Your task to perform on an android device: Go to Maps Image 0: 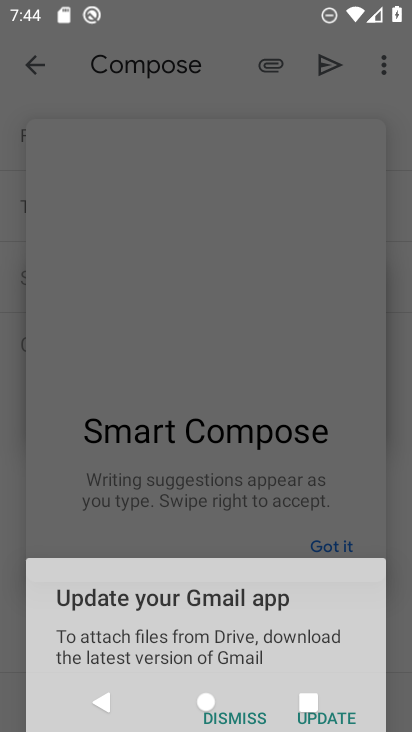
Step 0: press home button
Your task to perform on an android device: Go to Maps Image 1: 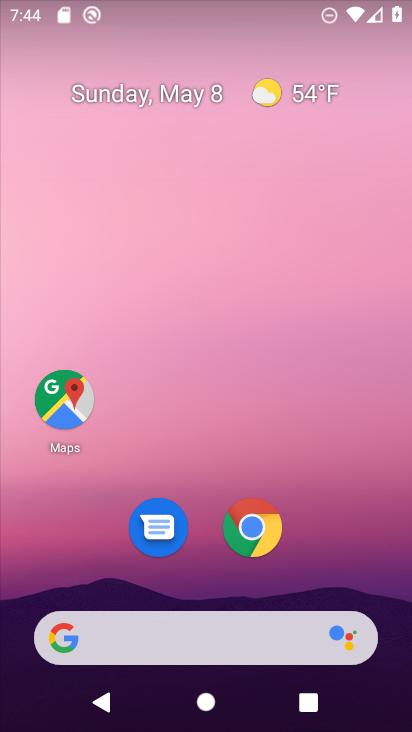
Step 1: click (69, 392)
Your task to perform on an android device: Go to Maps Image 2: 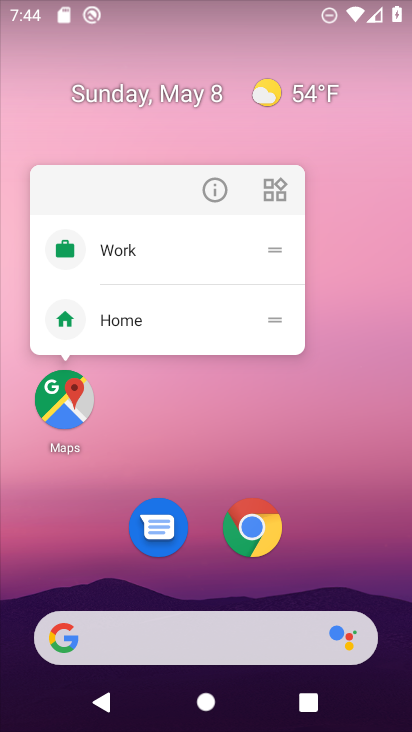
Step 2: click (64, 391)
Your task to perform on an android device: Go to Maps Image 3: 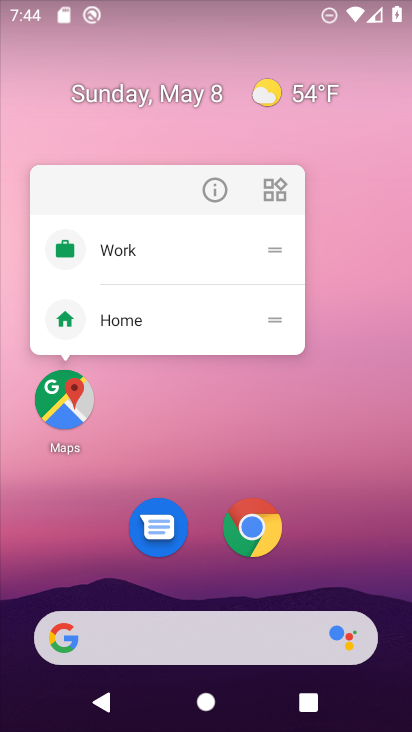
Step 3: drag from (332, 475) to (397, 40)
Your task to perform on an android device: Go to Maps Image 4: 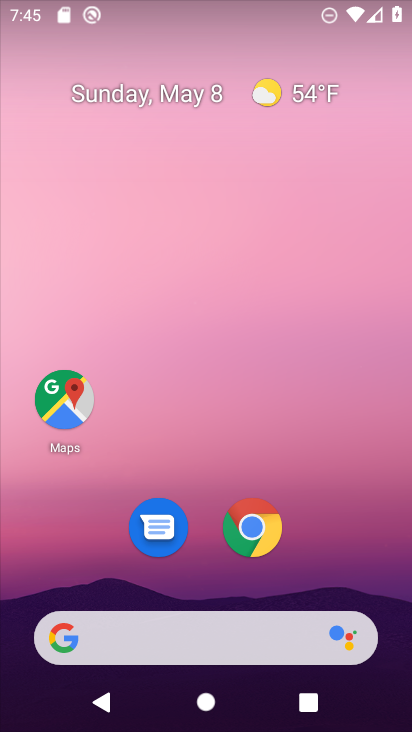
Step 4: drag from (372, 577) to (364, 27)
Your task to perform on an android device: Go to Maps Image 5: 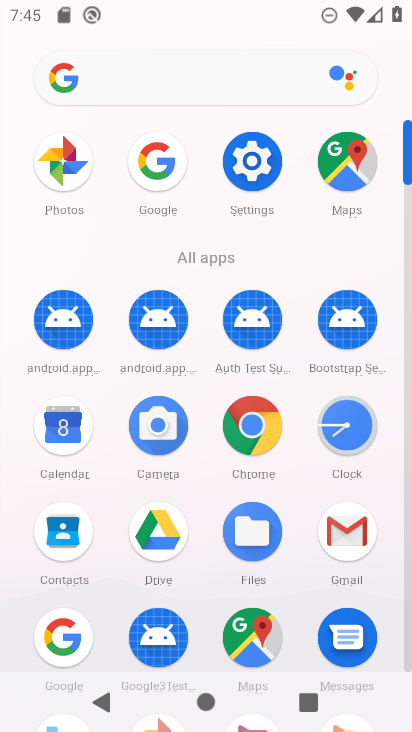
Step 5: click (259, 652)
Your task to perform on an android device: Go to Maps Image 6: 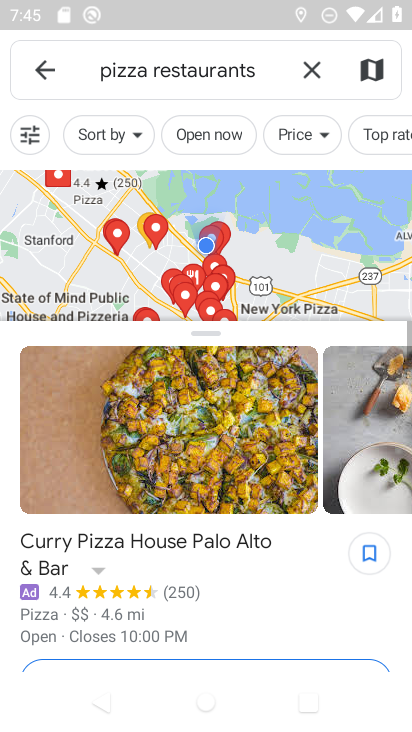
Step 6: task complete